Your task to perform on an android device: Open calendar and show me the fourth week of next month Image 0: 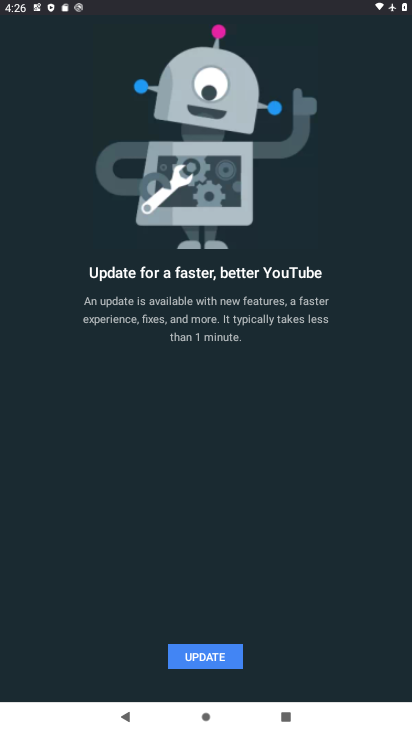
Step 0: press back button
Your task to perform on an android device: Open calendar and show me the fourth week of next month Image 1: 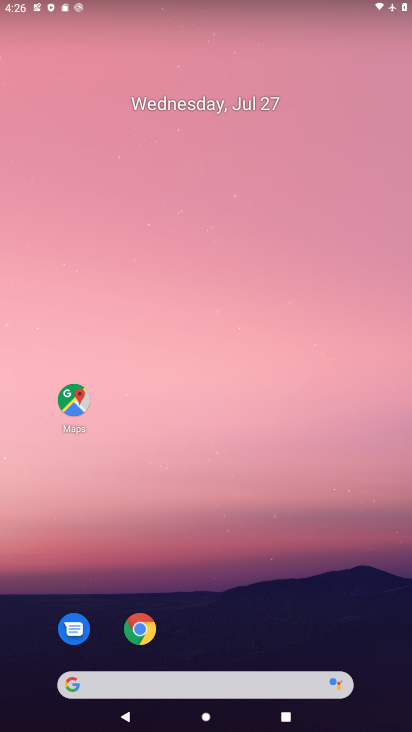
Step 1: drag from (218, 638) to (200, 232)
Your task to perform on an android device: Open calendar and show me the fourth week of next month Image 2: 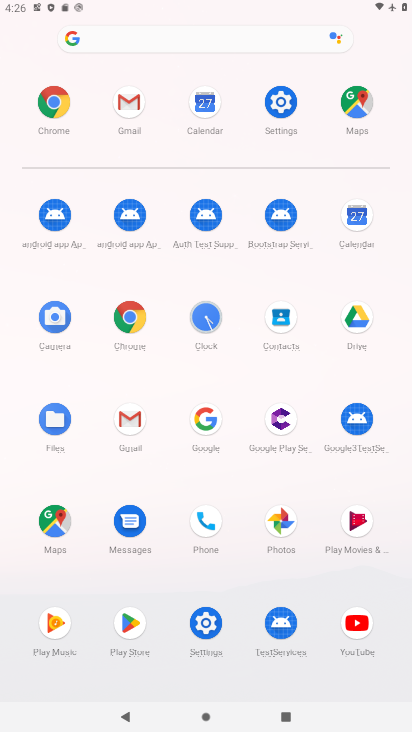
Step 2: click (343, 239)
Your task to perform on an android device: Open calendar and show me the fourth week of next month Image 3: 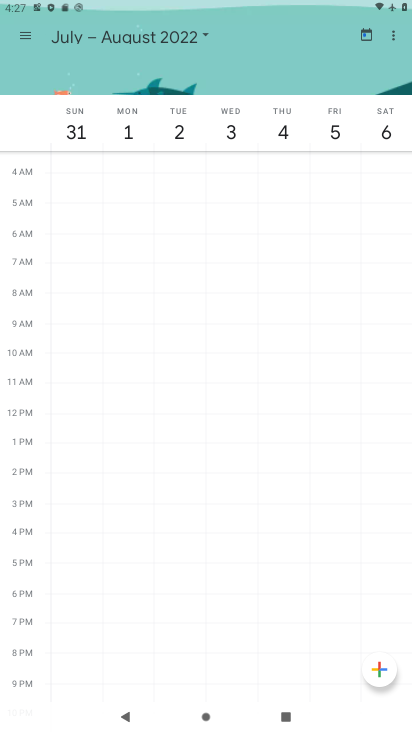
Step 3: task complete